Your task to perform on an android device: Open Google Maps Image 0: 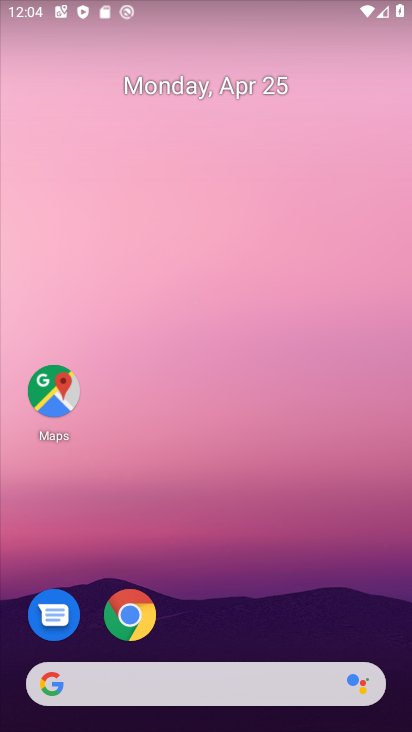
Step 0: drag from (361, 608) to (389, 101)
Your task to perform on an android device: Open Google Maps Image 1: 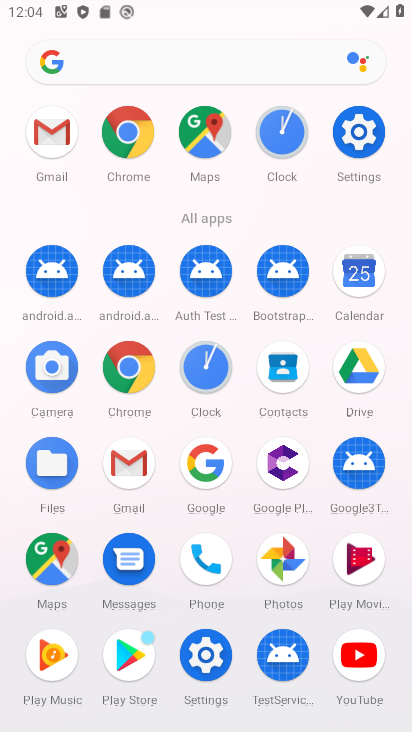
Step 1: click (55, 550)
Your task to perform on an android device: Open Google Maps Image 2: 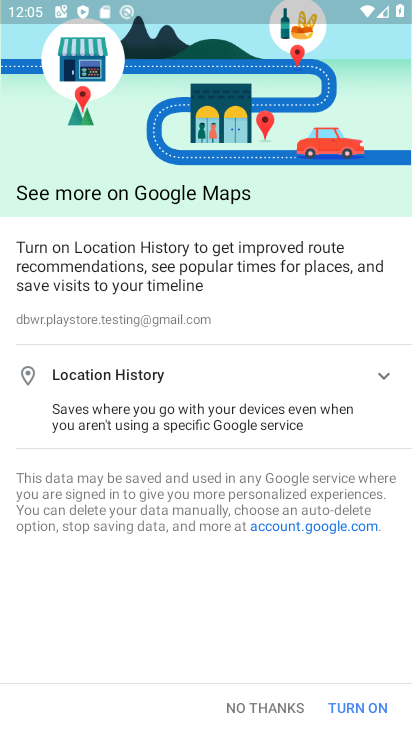
Step 2: click (234, 703)
Your task to perform on an android device: Open Google Maps Image 3: 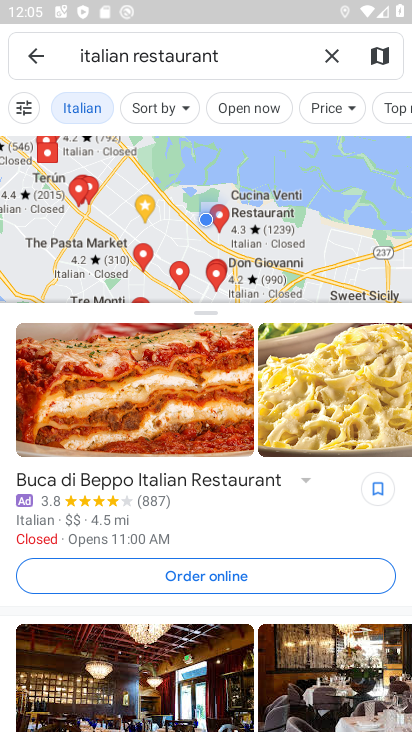
Step 3: task complete